Your task to perform on an android device: Go to privacy settings Image 0: 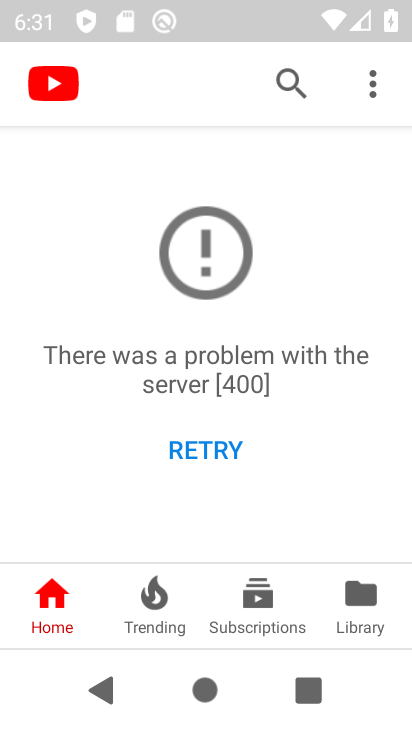
Step 0: press home button
Your task to perform on an android device: Go to privacy settings Image 1: 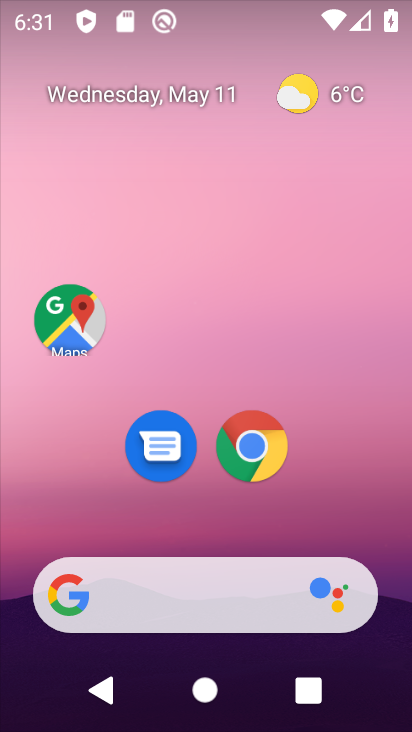
Step 1: drag from (323, 508) to (358, 56)
Your task to perform on an android device: Go to privacy settings Image 2: 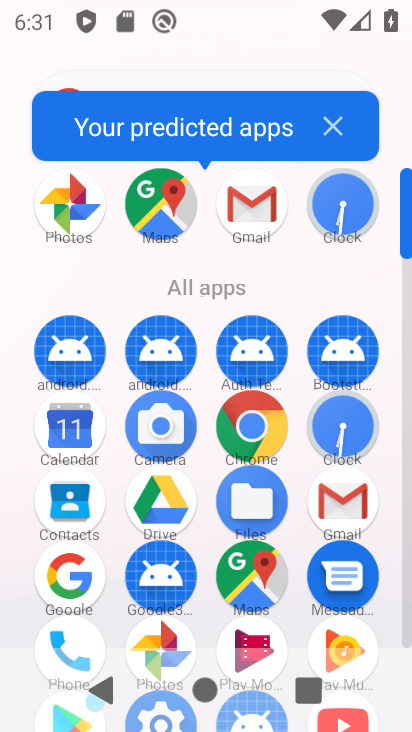
Step 2: drag from (293, 306) to (310, 35)
Your task to perform on an android device: Go to privacy settings Image 3: 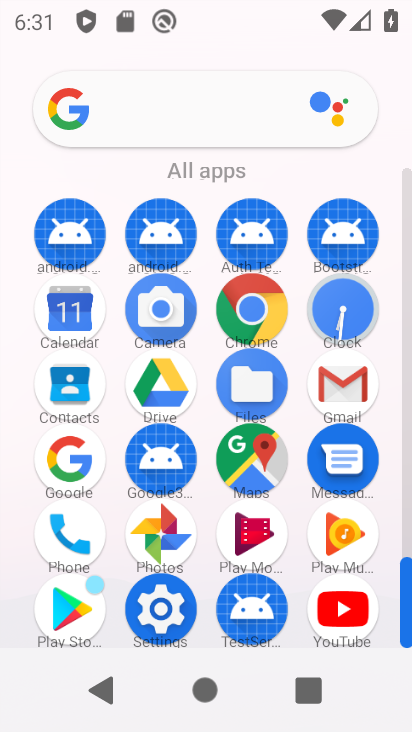
Step 3: click (147, 613)
Your task to perform on an android device: Go to privacy settings Image 4: 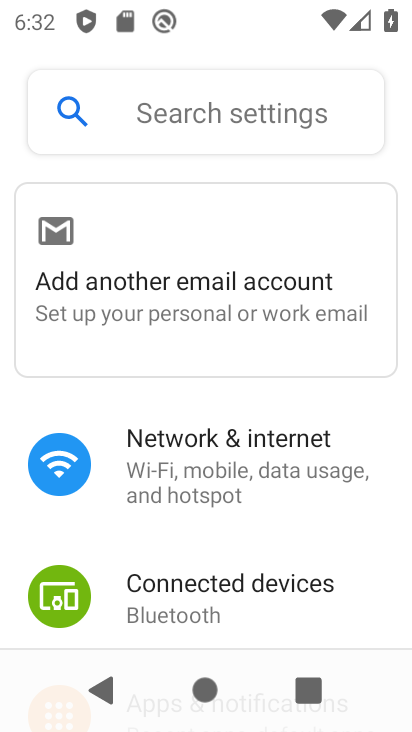
Step 4: drag from (352, 623) to (362, 178)
Your task to perform on an android device: Go to privacy settings Image 5: 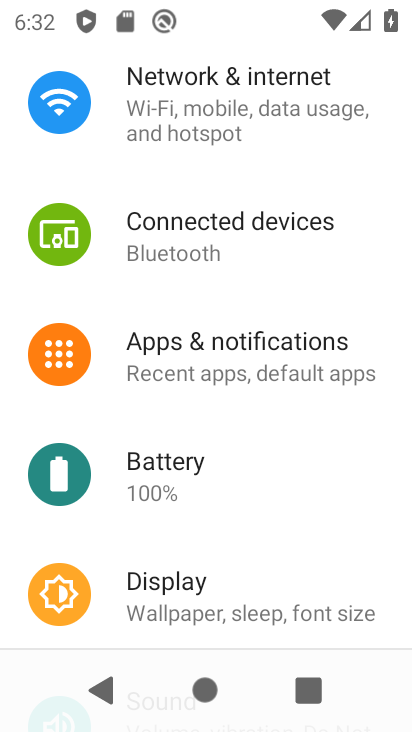
Step 5: drag from (358, 567) to (310, 129)
Your task to perform on an android device: Go to privacy settings Image 6: 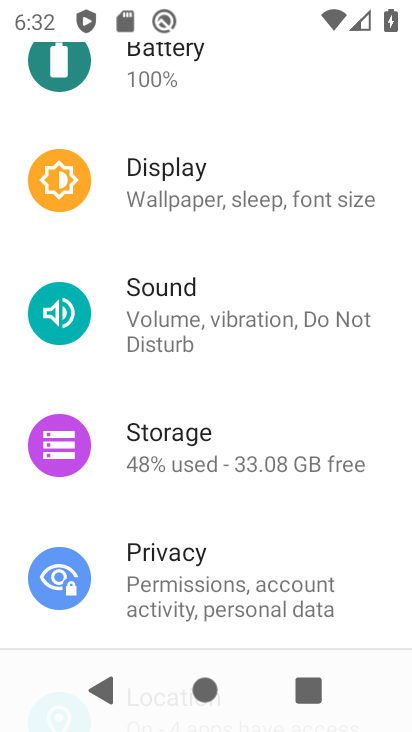
Step 6: click (139, 575)
Your task to perform on an android device: Go to privacy settings Image 7: 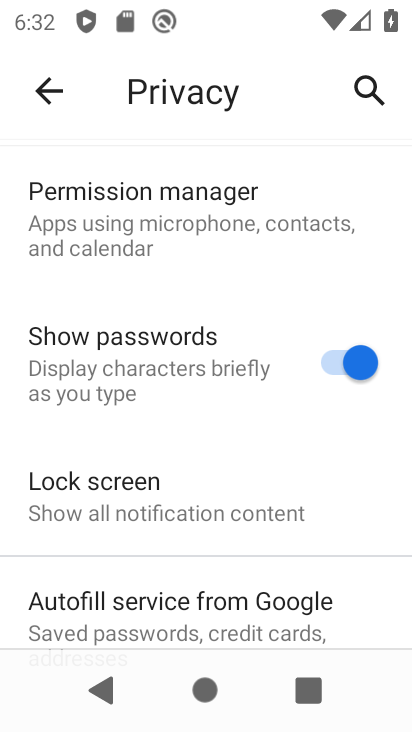
Step 7: task complete